Your task to perform on an android device: turn off priority inbox in the gmail app Image 0: 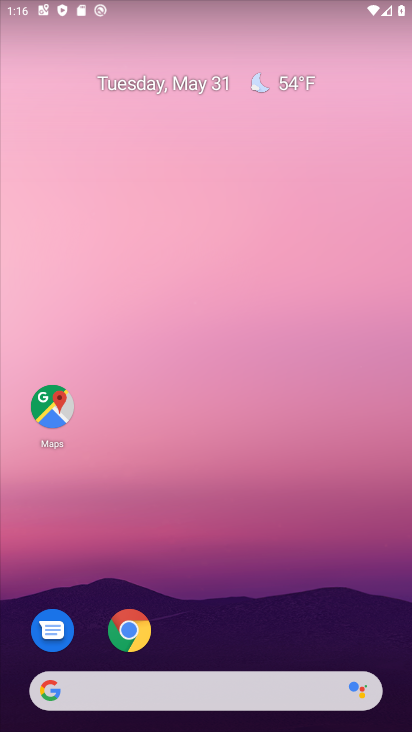
Step 0: drag from (220, 632) to (183, 99)
Your task to perform on an android device: turn off priority inbox in the gmail app Image 1: 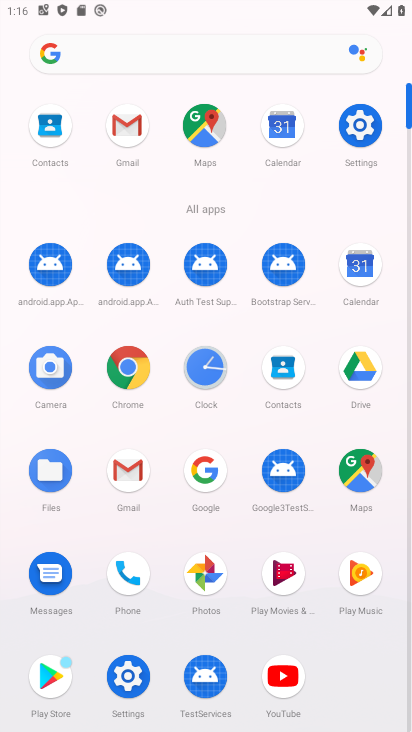
Step 1: click (129, 126)
Your task to perform on an android device: turn off priority inbox in the gmail app Image 2: 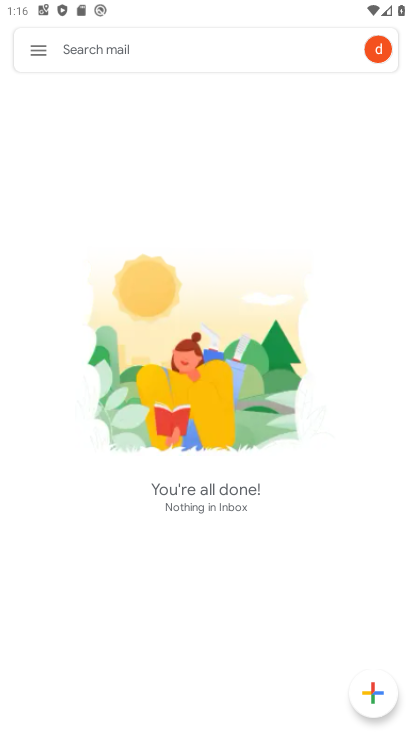
Step 2: click (39, 54)
Your task to perform on an android device: turn off priority inbox in the gmail app Image 3: 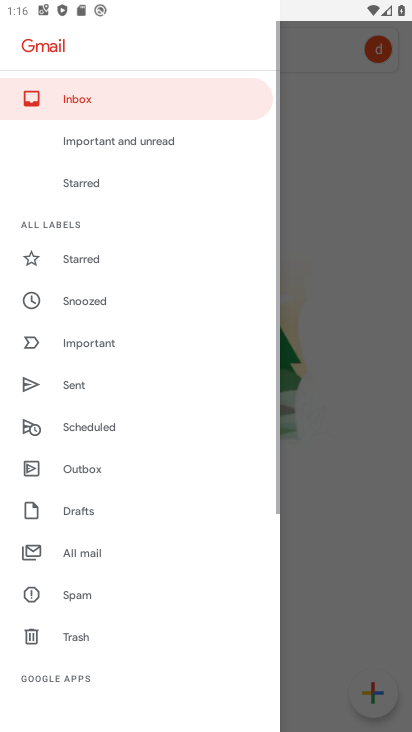
Step 3: drag from (95, 620) to (135, 197)
Your task to perform on an android device: turn off priority inbox in the gmail app Image 4: 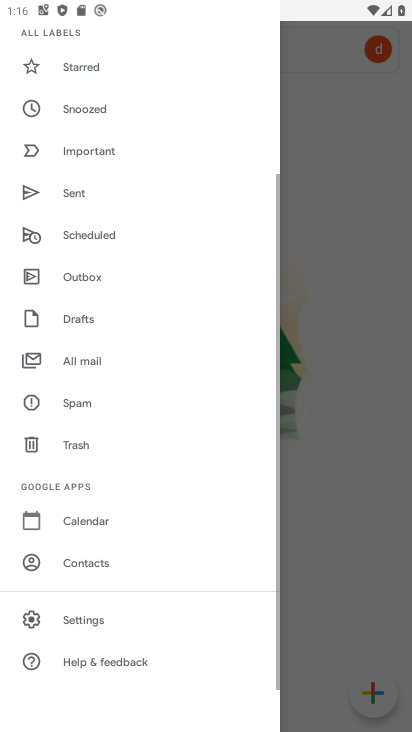
Step 4: click (74, 620)
Your task to perform on an android device: turn off priority inbox in the gmail app Image 5: 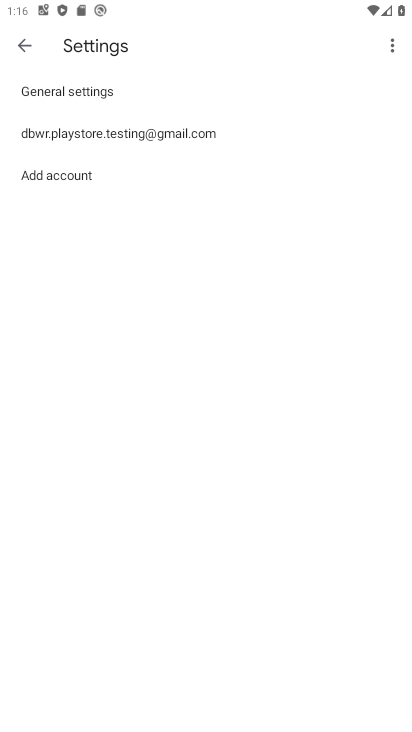
Step 5: click (41, 147)
Your task to perform on an android device: turn off priority inbox in the gmail app Image 6: 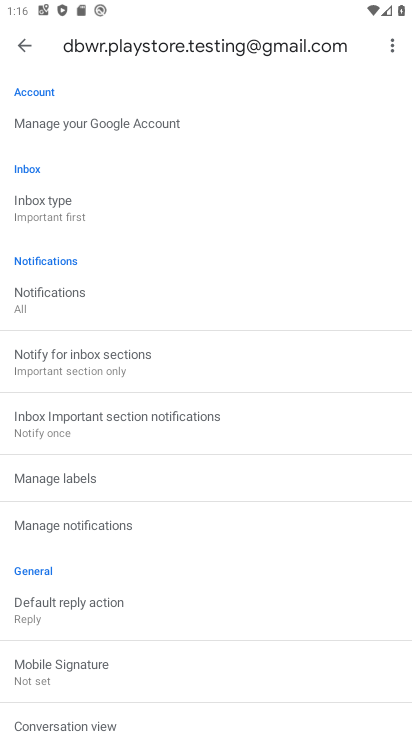
Step 6: click (55, 214)
Your task to perform on an android device: turn off priority inbox in the gmail app Image 7: 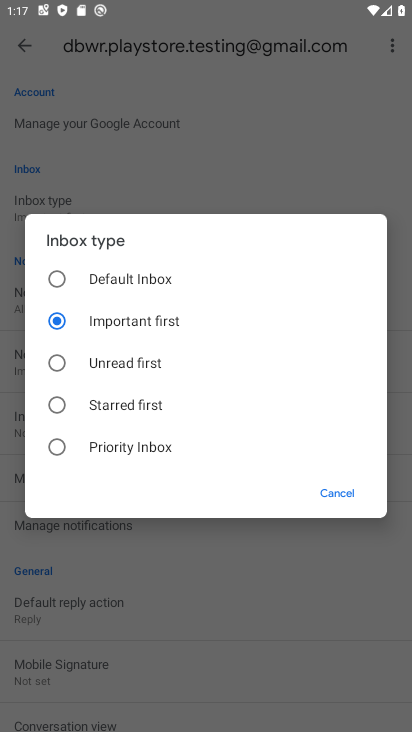
Step 7: task complete